Your task to perform on an android device: Go to location settings Image 0: 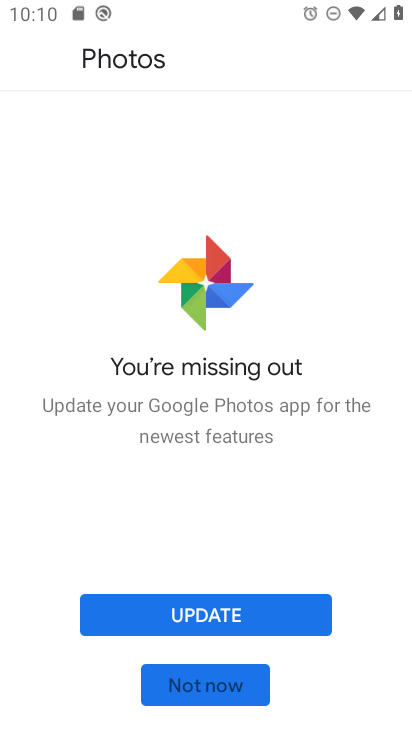
Step 0: press home button
Your task to perform on an android device: Go to location settings Image 1: 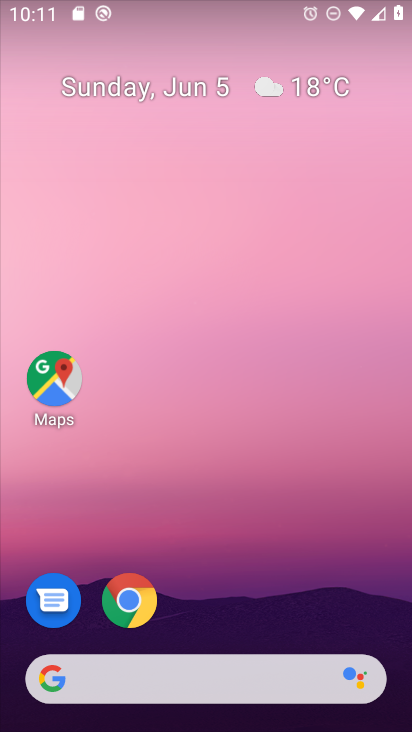
Step 1: drag from (253, 593) to (207, 35)
Your task to perform on an android device: Go to location settings Image 2: 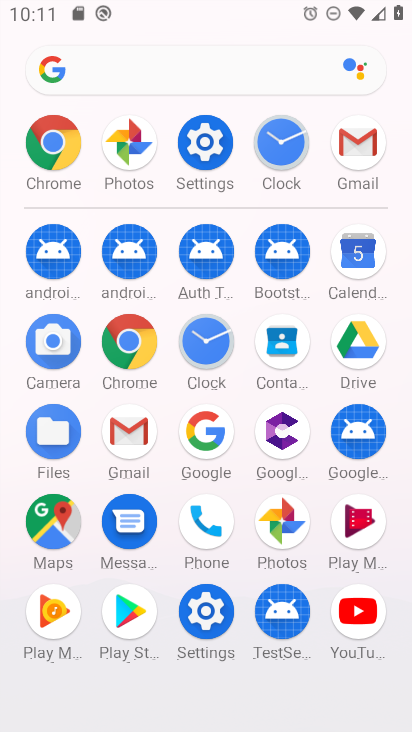
Step 2: click (209, 134)
Your task to perform on an android device: Go to location settings Image 3: 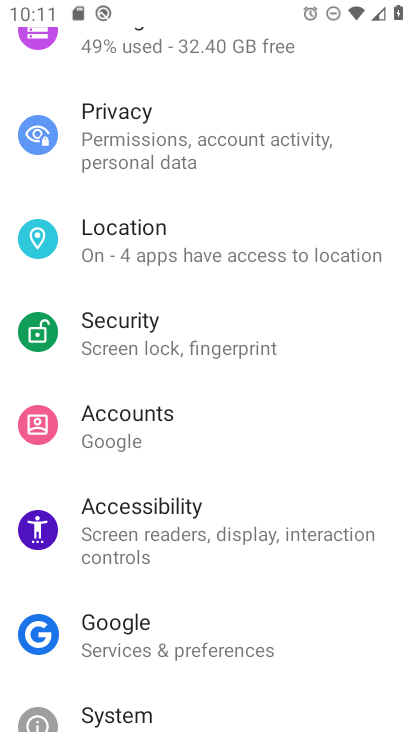
Step 3: click (232, 238)
Your task to perform on an android device: Go to location settings Image 4: 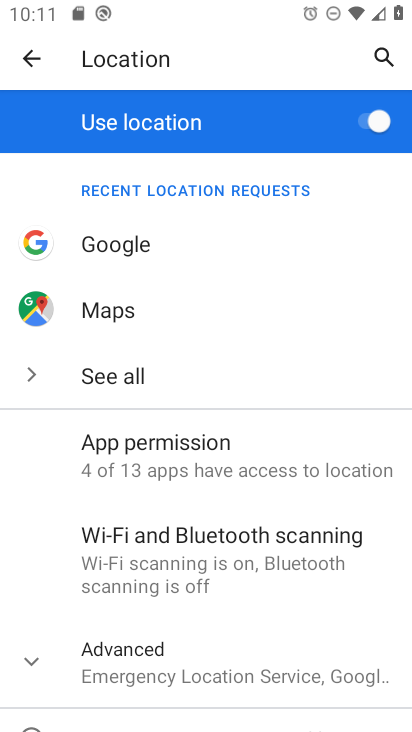
Step 4: task complete